Your task to perform on an android device: make emails show in primary in the gmail app Image 0: 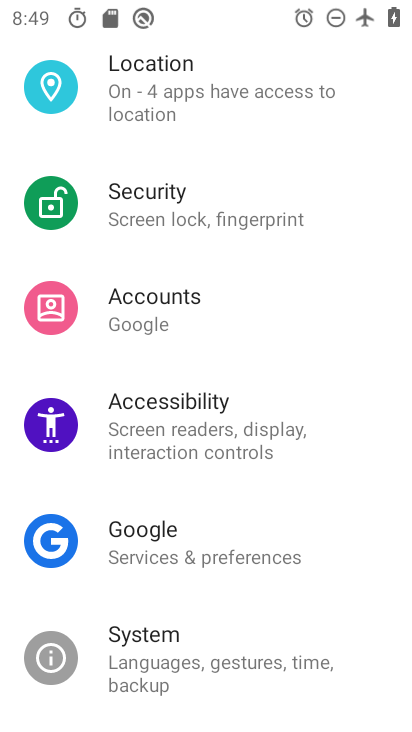
Step 0: press home button
Your task to perform on an android device: make emails show in primary in the gmail app Image 1: 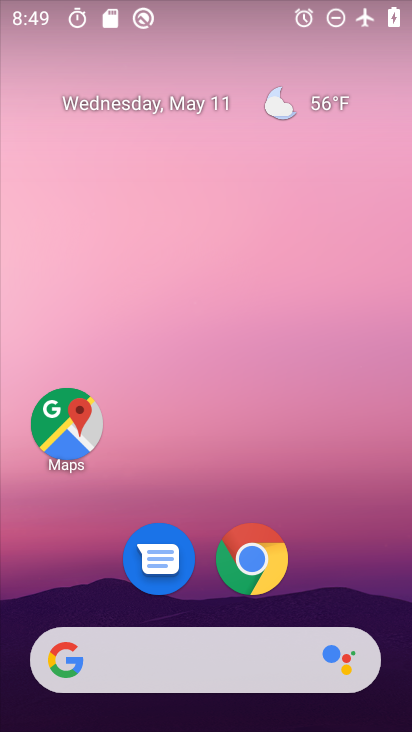
Step 1: drag from (334, 408) to (261, 0)
Your task to perform on an android device: make emails show in primary in the gmail app Image 2: 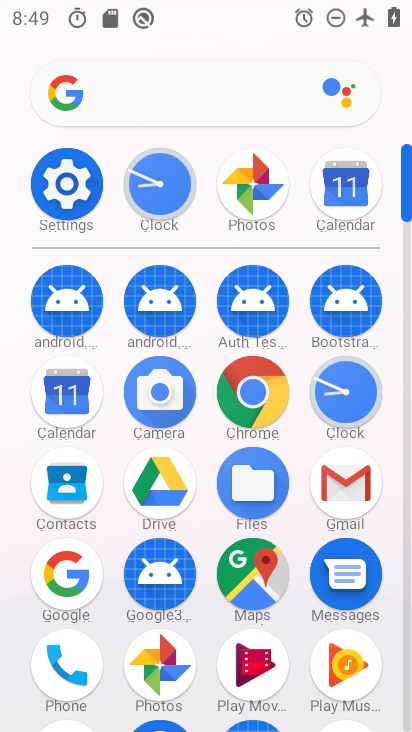
Step 2: click (361, 500)
Your task to perform on an android device: make emails show in primary in the gmail app Image 3: 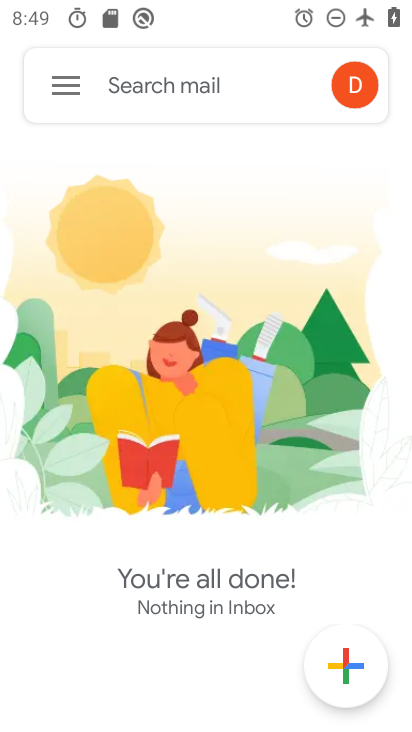
Step 3: click (61, 81)
Your task to perform on an android device: make emails show in primary in the gmail app Image 4: 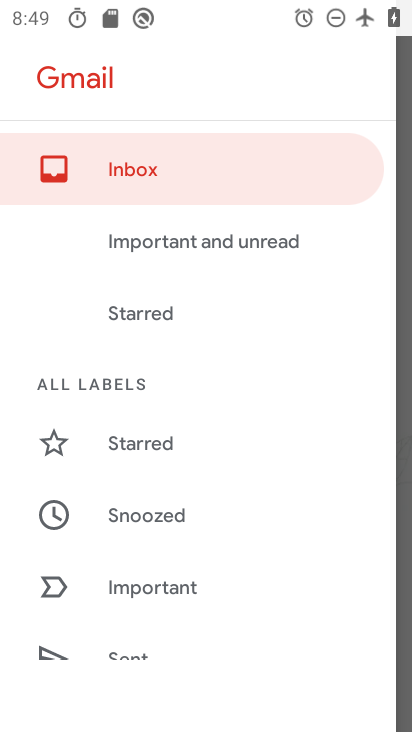
Step 4: drag from (171, 499) to (172, 141)
Your task to perform on an android device: make emails show in primary in the gmail app Image 5: 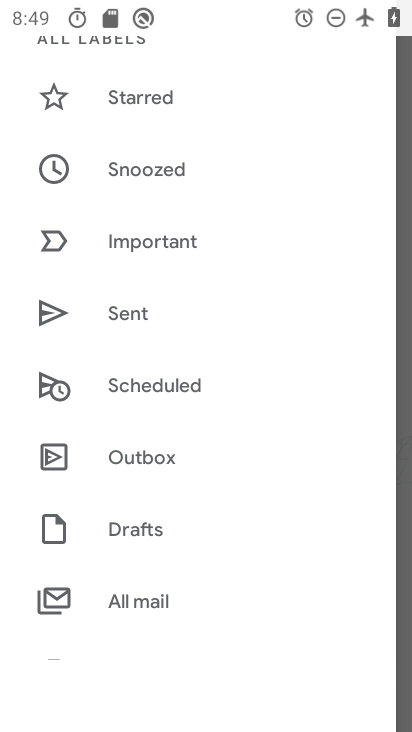
Step 5: drag from (146, 566) to (195, 180)
Your task to perform on an android device: make emails show in primary in the gmail app Image 6: 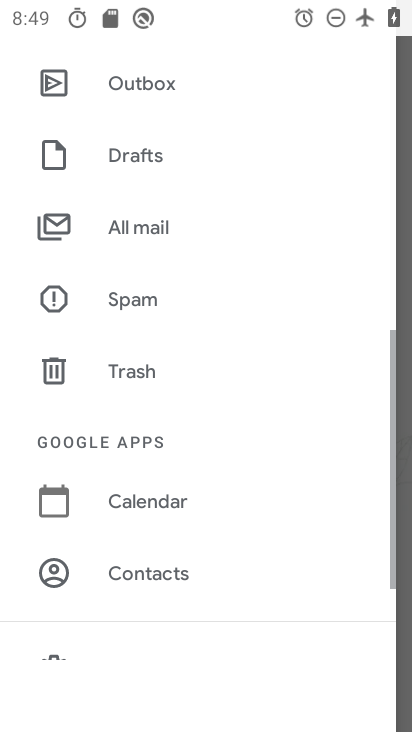
Step 6: drag from (228, 554) to (245, 164)
Your task to perform on an android device: make emails show in primary in the gmail app Image 7: 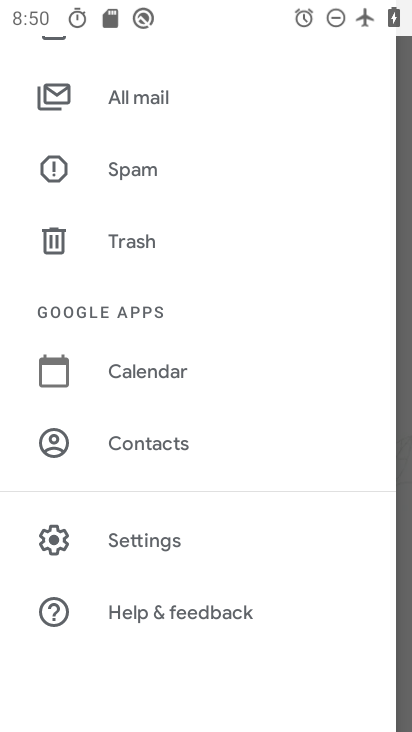
Step 7: click (137, 538)
Your task to perform on an android device: make emails show in primary in the gmail app Image 8: 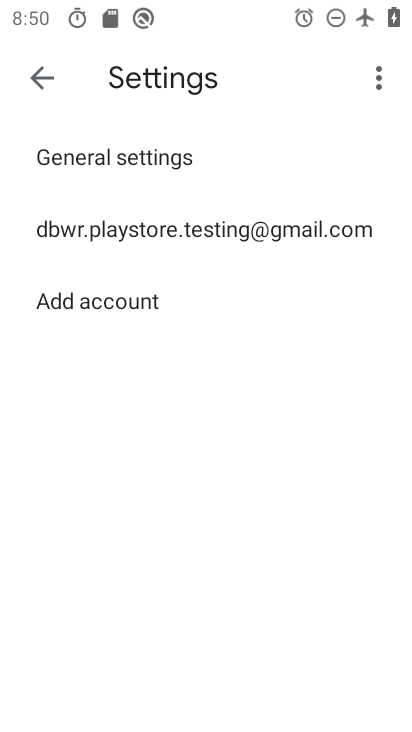
Step 8: click (157, 231)
Your task to perform on an android device: make emails show in primary in the gmail app Image 9: 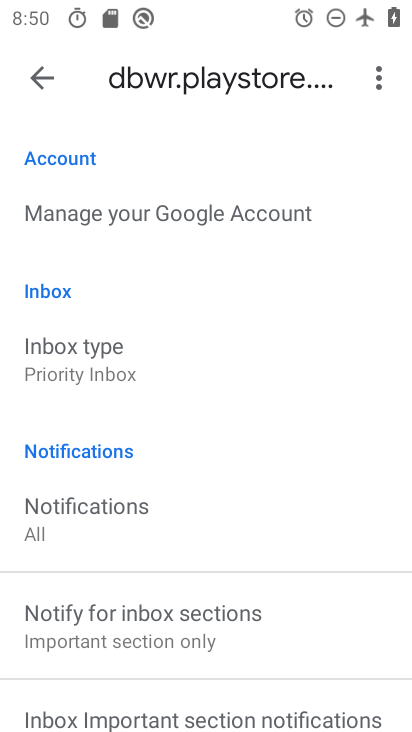
Step 9: click (130, 365)
Your task to perform on an android device: make emails show in primary in the gmail app Image 10: 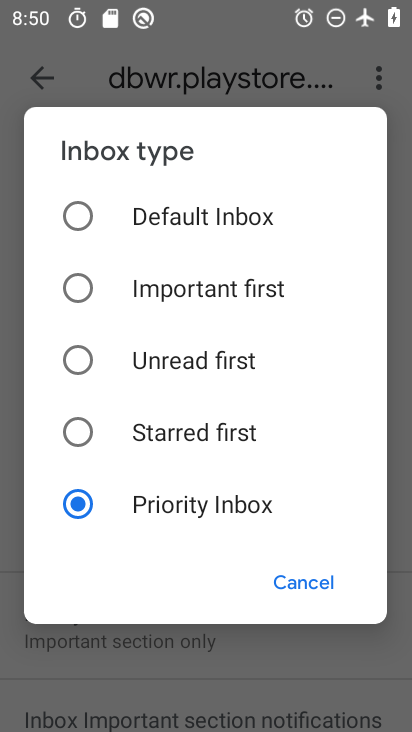
Step 10: click (248, 226)
Your task to perform on an android device: make emails show in primary in the gmail app Image 11: 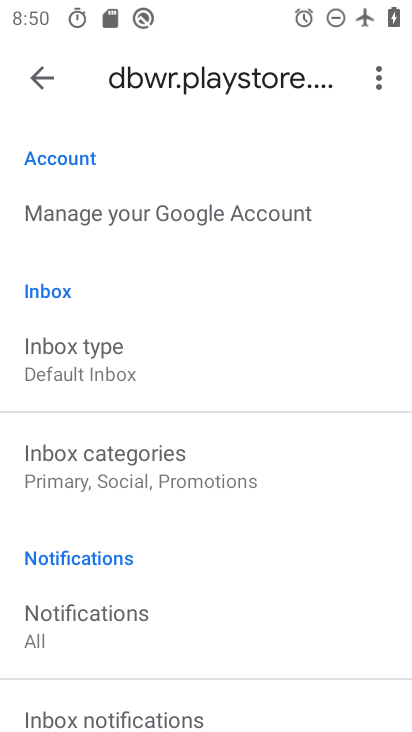
Step 11: task complete